Your task to perform on an android device: Go to network settings Image 0: 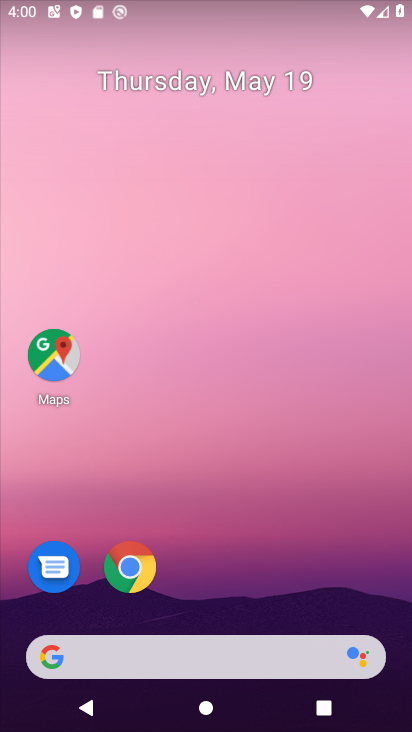
Step 0: drag from (184, 238) to (162, 35)
Your task to perform on an android device: Go to network settings Image 1: 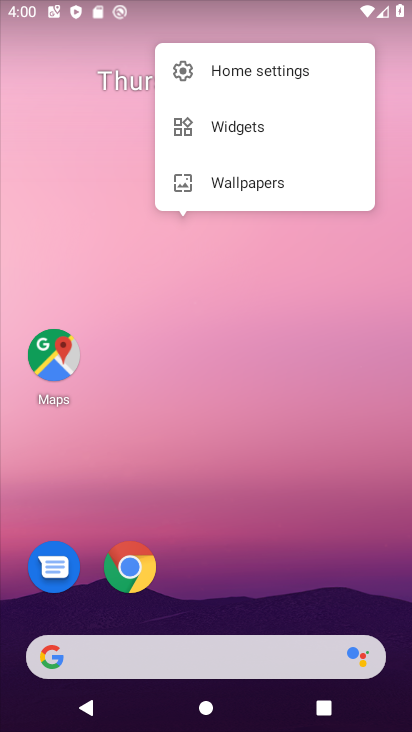
Step 1: click (207, 591)
Your task to perform on an android device: Go to network settings Image 2: 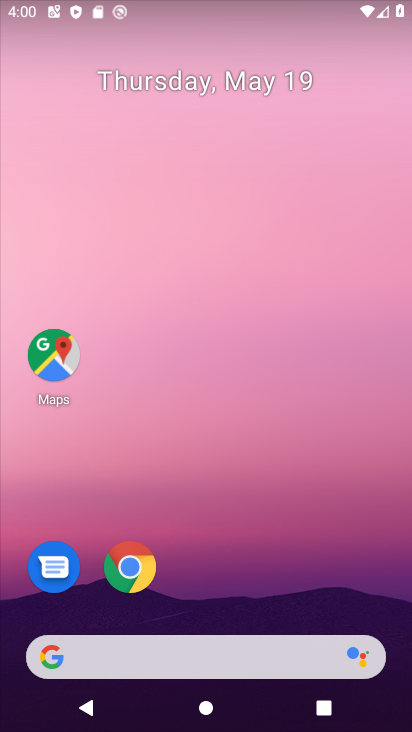
Step 2: drag from (223, 578) to (199, 32)
Your task to perform on an android device: Go to network settings Image 3: 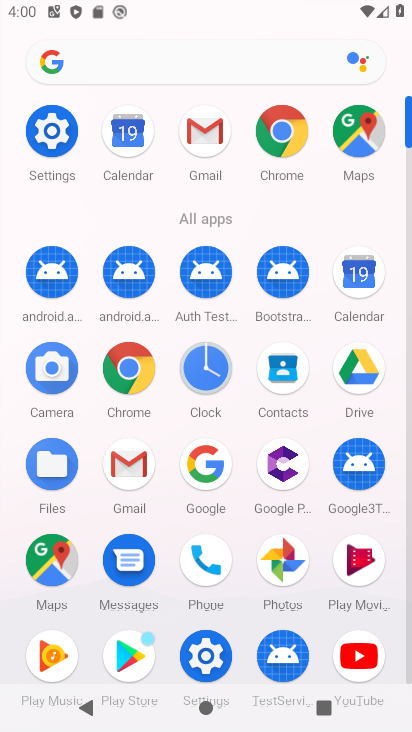
Step 3: click (50, 135)
Your task to perform on an android device: Go to network settings Image 4: 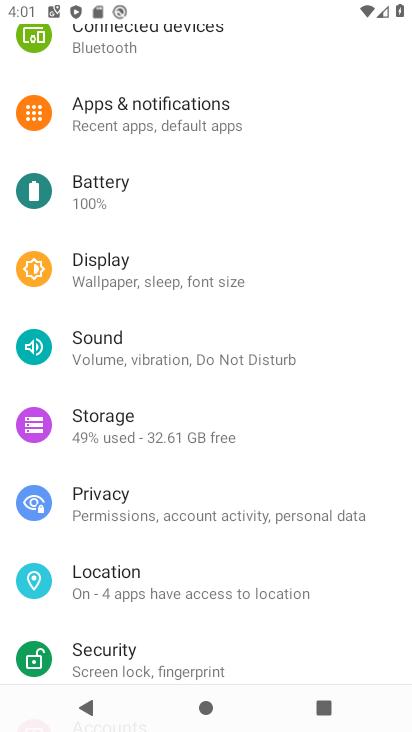
Step 4: drag from (153, 236) to (220, 551)
Your task to perform on an android device: Go to network settings Image 5: 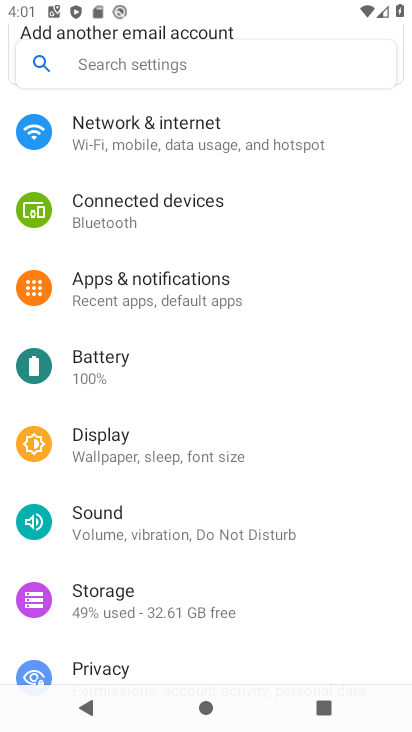
Step 5: drag from (231, 280) to (277, 554)
Your task to perform on an android device: Go to network settings Image 6: 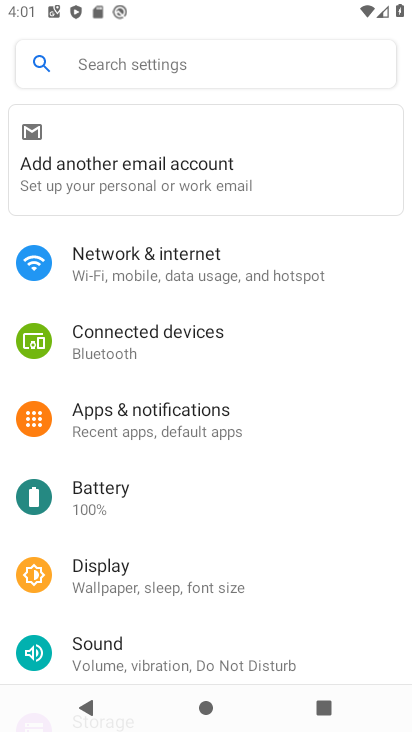
Step 6: click (116, 145)
Your task to perform on an android device: Go to network settings Image 7: 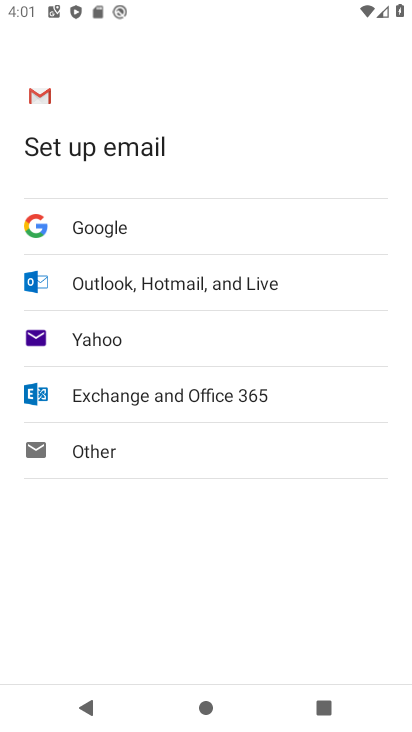
Step 7: press back button
Your task to perform on an android device: Go to network settings Image 8: 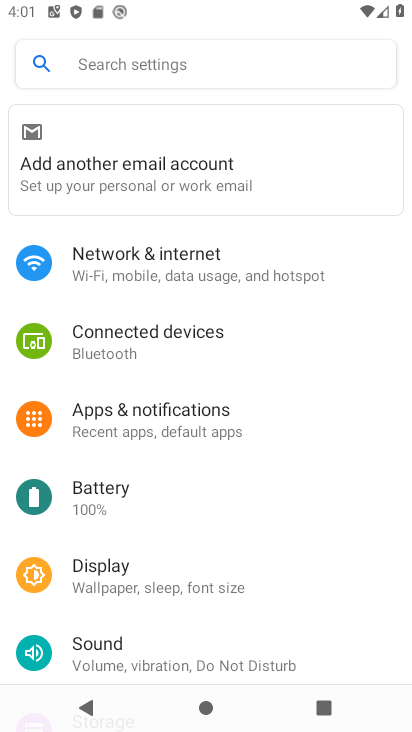
Step 8: click (110, 266)
Your task to perform on an android device: Go to network settings Image 9: 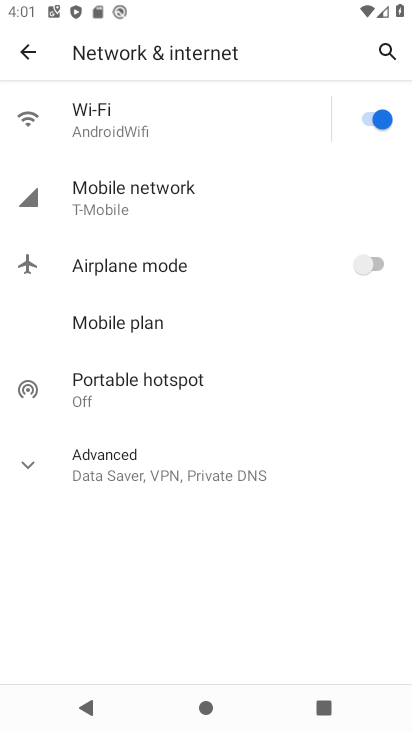
Step 9: task complete